Your task to perform on an android device: Open Google Maps and go to "Timeline" Image 0: 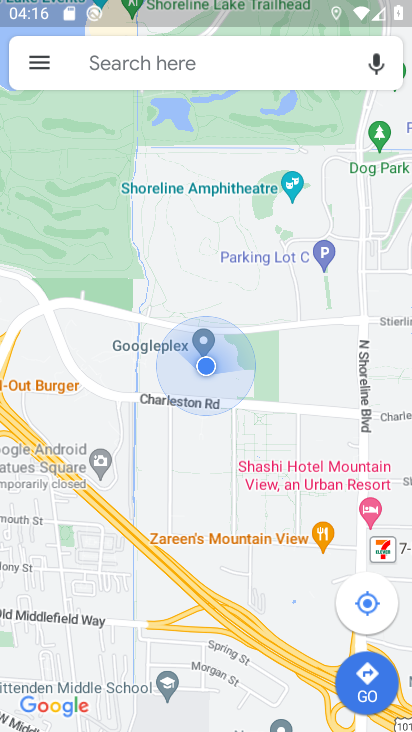
Step 0: click (40, 61)
Your task to perform on an android device: Open Google Maps and go to "Timeline" Image 1: 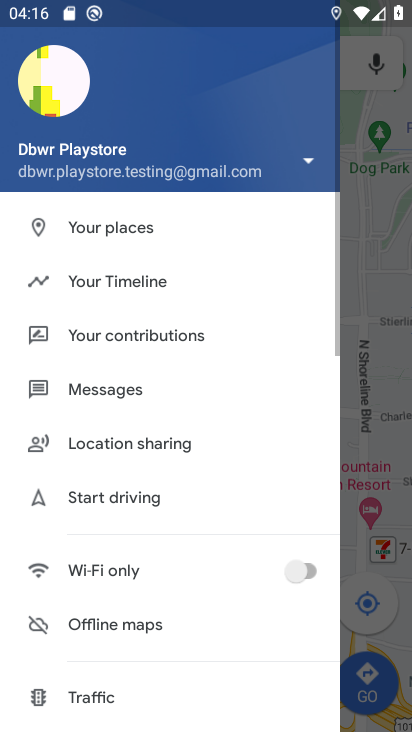
Step 1: click (99, 282)
Your task to perform on an android device: Open Google Maps and go to "Timeline" Image 2: 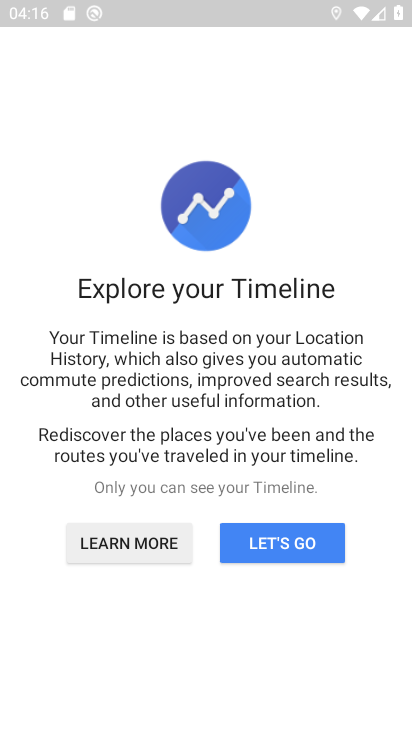
Step 2: click (284, 551)
Your task to perform on an android device: Open Google Maps and go to "Timeline" Image 3: 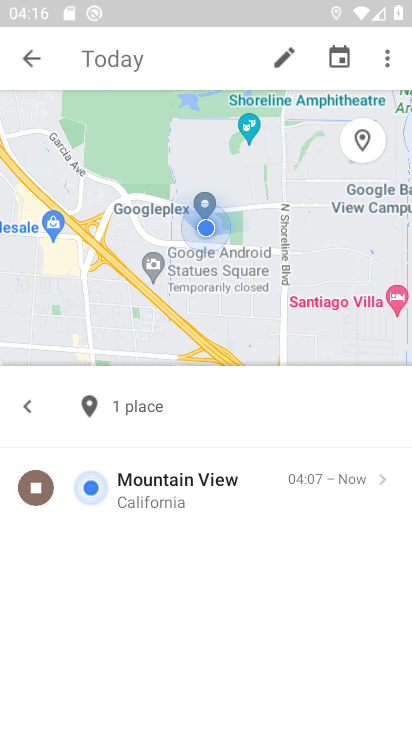
Step 3: task complete